Your task to perform on an android device: Open Yahoo.com Image 0: 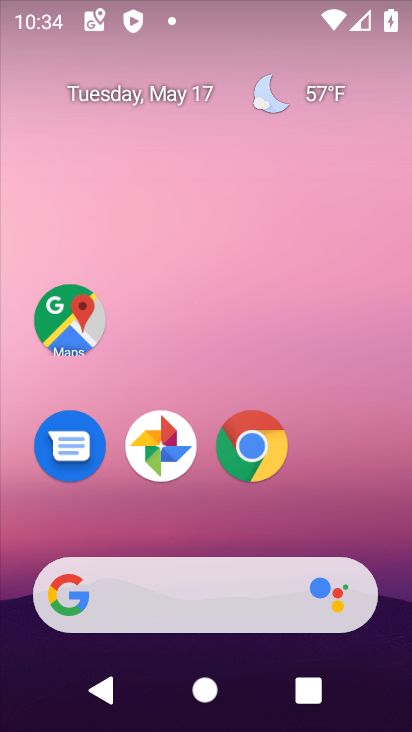
Step 0: click (258, 449)
Your task to perform on an android device: Open Yahoo.com Image 1: 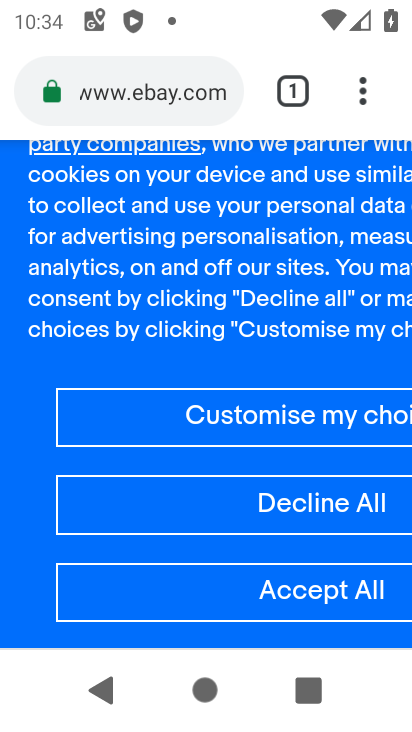
Step 1: click (195, 110)
Your task to perform on an android device: Open Yahoo.com Image 2: 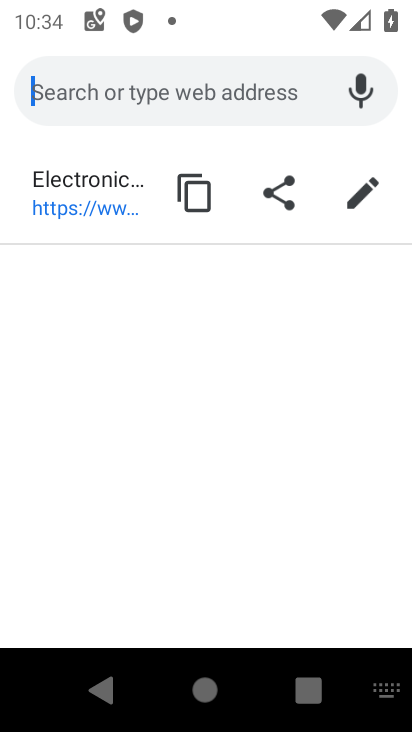
Step 2: type "yahoo.com"
Your task to perform on an android device: Open Yahoo.com Image 3: 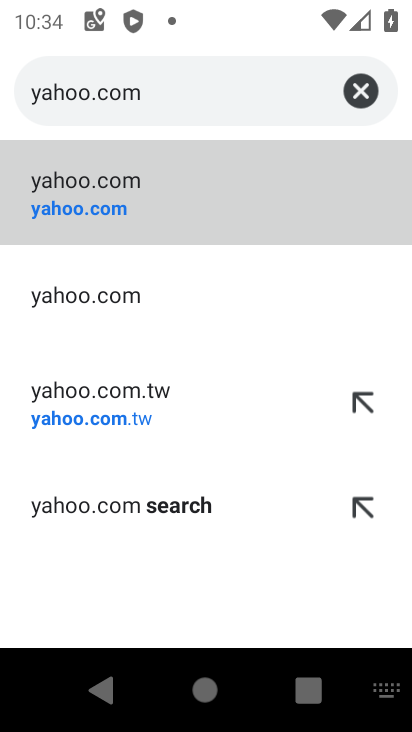
Step 3: click (83, 218)
Your task to perform on an android device: Open Yahoo.com Image 4: 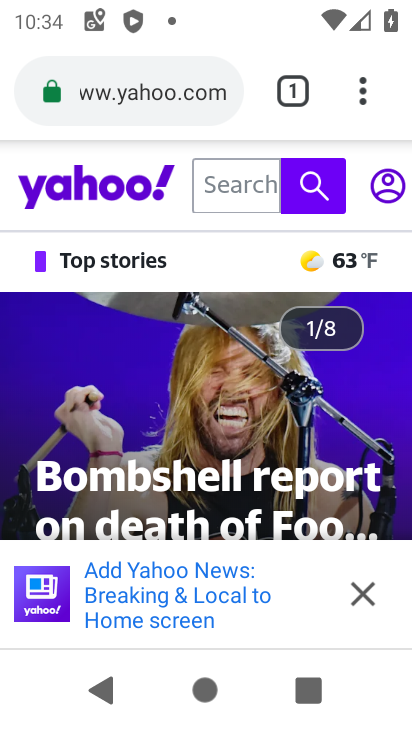
Step 4: task complete